Your task to perform on an android device: refresh tabs in the chrome app Image 0: 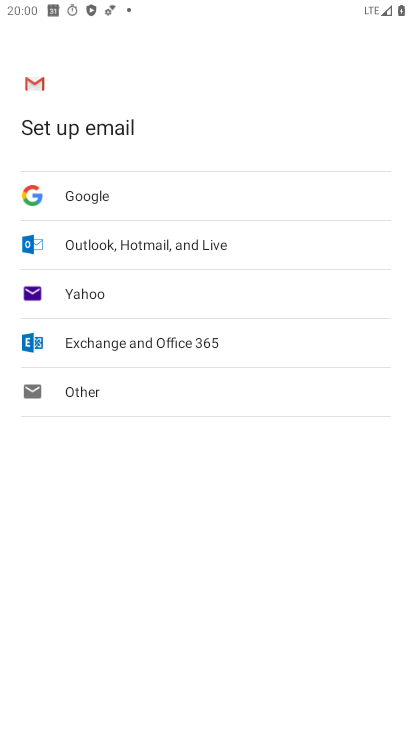
Step 0: press home button
Your task to perform on an android device: refresh tabs in the chrome app Image 1: 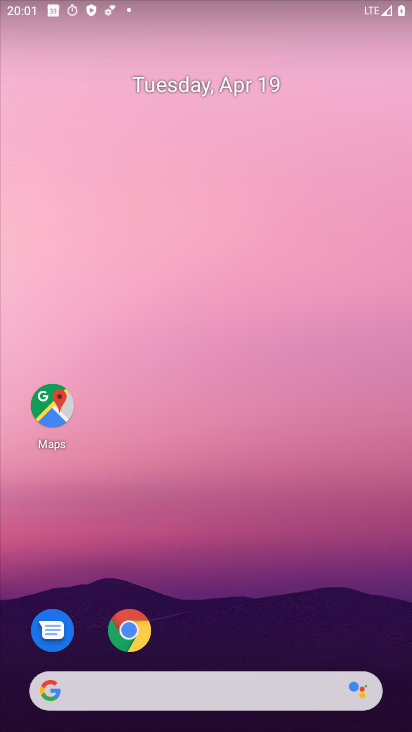
Step 1: click (123, 631)
Your task to perform on an android device: refresh tabs in the chrome app Image 2: 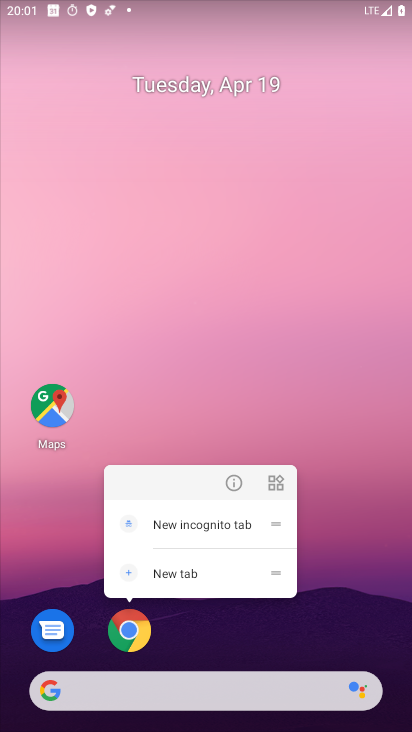
Step 2: click (123, 631)
Your task to perform on an android device: refresh tabs in the chrome app Image 3: 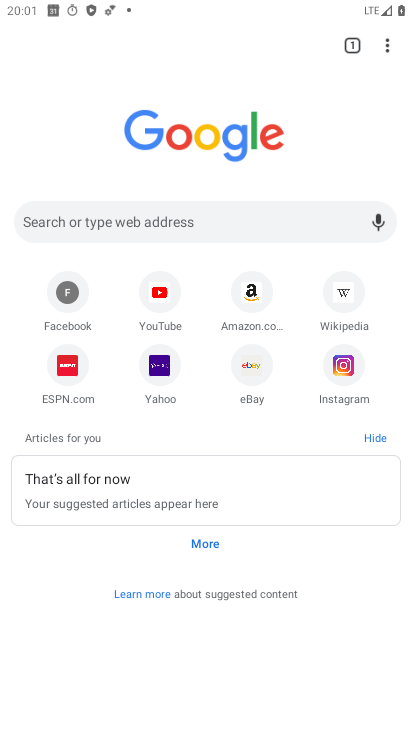
Step 3: click (389, 40)
Your task to perform on an android device: refresh tabs in the chrome app Image 4: 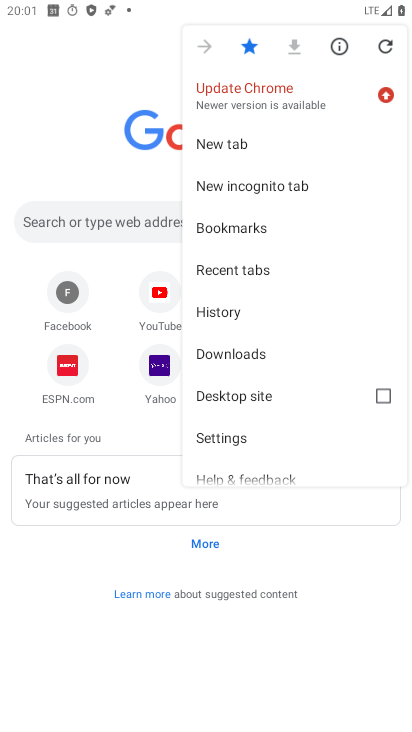
Step 4: click (379, 43)
Your task to perform on an android device: refresh tabs in the chrome app Image 5: 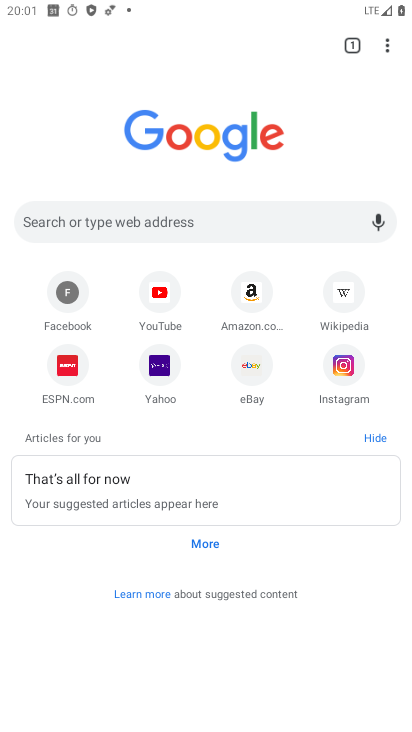
Step 5: task complete